Your task to perform on an android device: Find coffee shops on Maps Image 0: 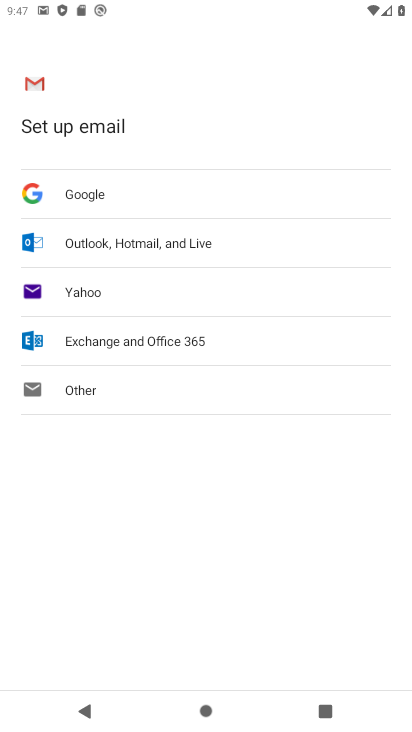
Step 0: press back button
Your task to perform on an android device: Find coffee shops on Maps Image 1: 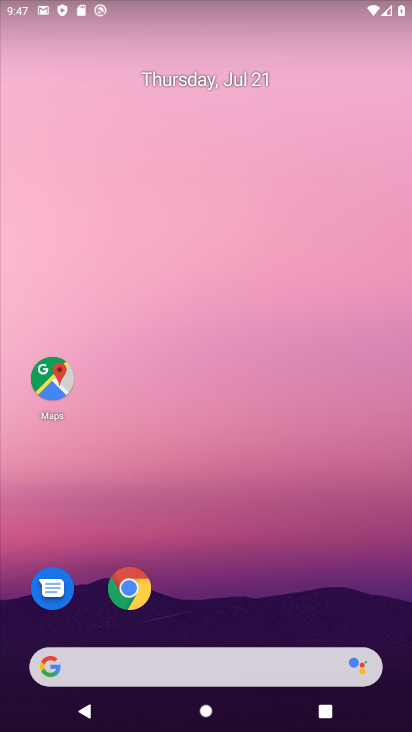
Step 1: click (47, 380)
Your task to perform on an android device: Find coffee shops on Maps Image 2: 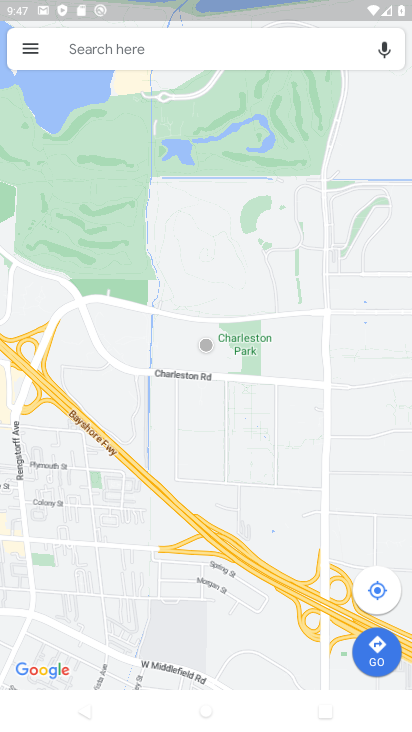
Step 2: click (118, 44)
Your task to perform on an android device: Find coffee shops on Maps Image 3: 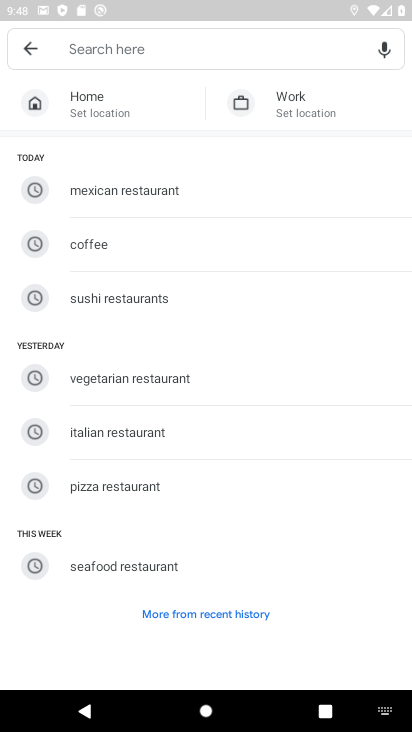
Step 3: click (119, 48)
Your task to perform on an android device: Find coffee shops on Maps Image 4: 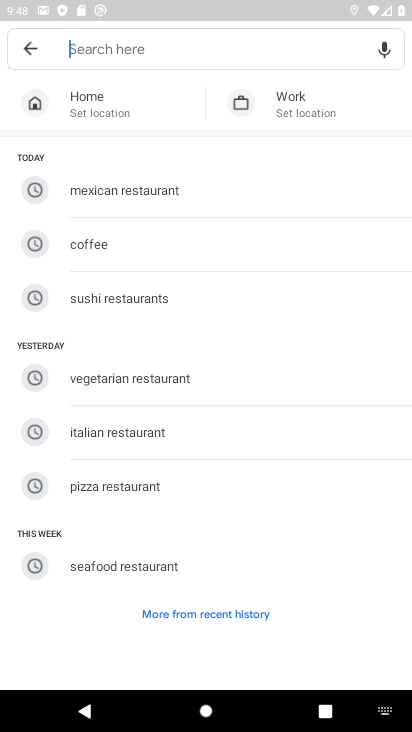
Step 4: type "coffee shops"
Your task to perform on an android device: Find coffee shops on Maps Image 5: 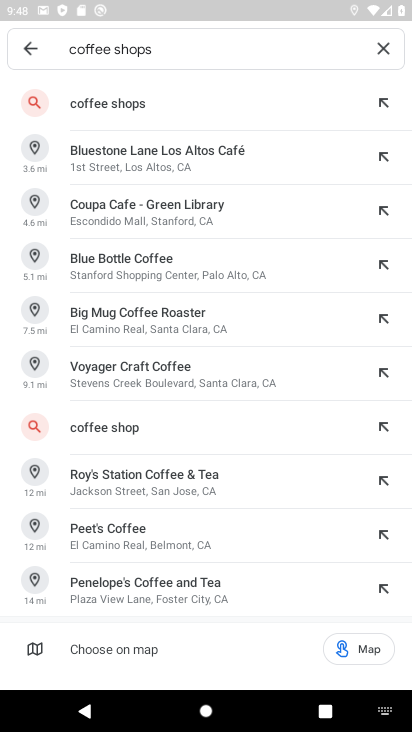
Step 5: click (112, 97)
Your task to perform on an android device: Find coffee shops on Maps Image 6: 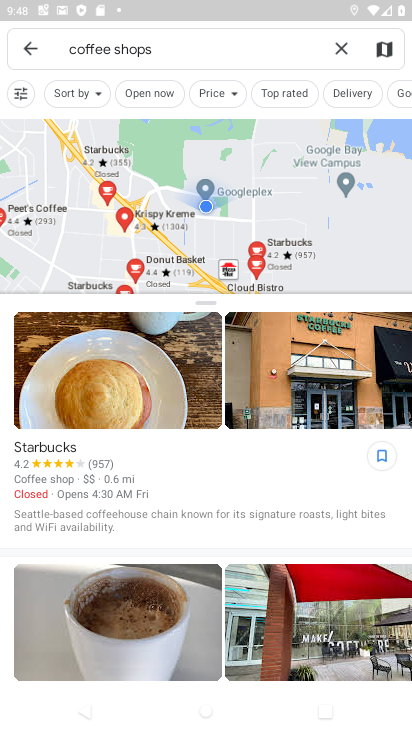
Step 6: task complete